Your task to perform on an android device: Turn on the flashlight Image 0: 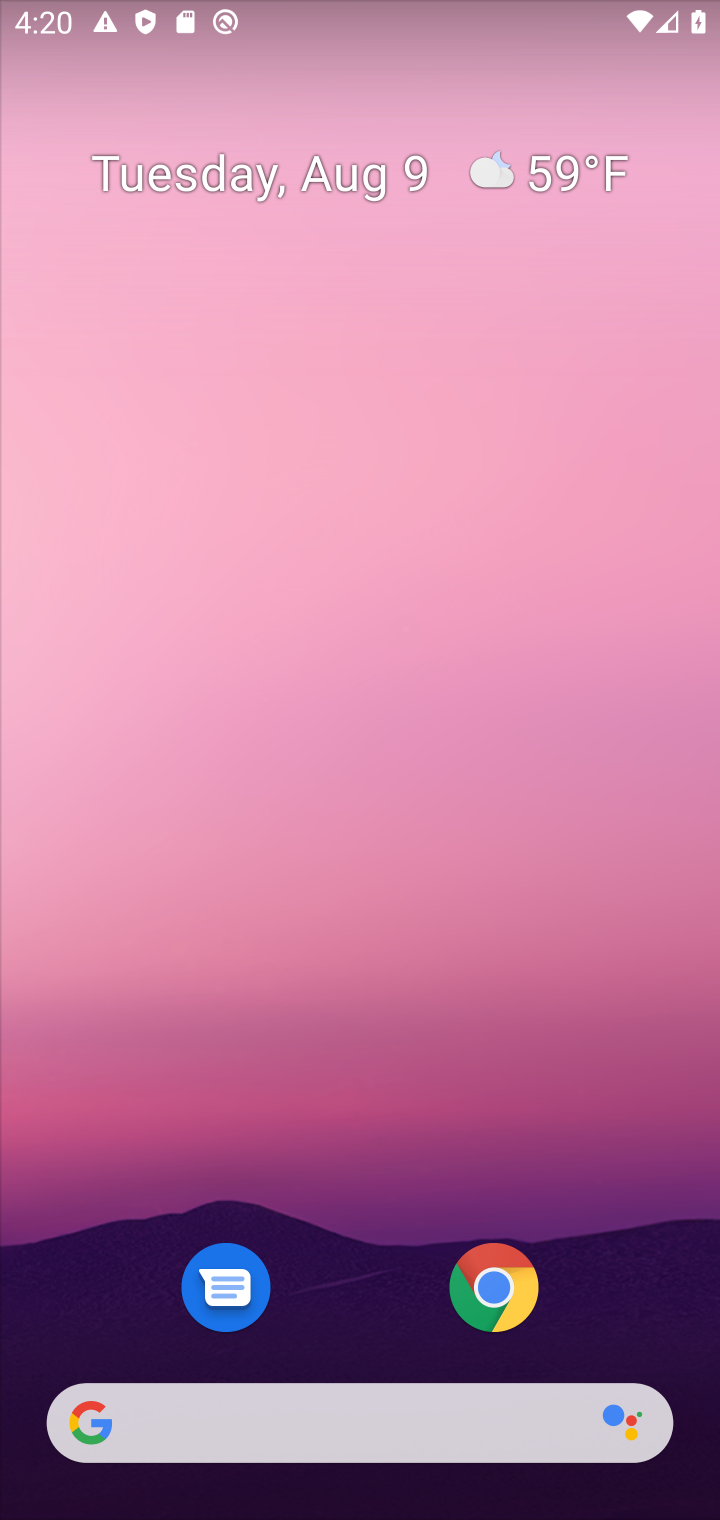
Step 0: drag from (475, 573) to (484, 440)
Your task to perform on an android device: Turn on the flashlight Image 1: 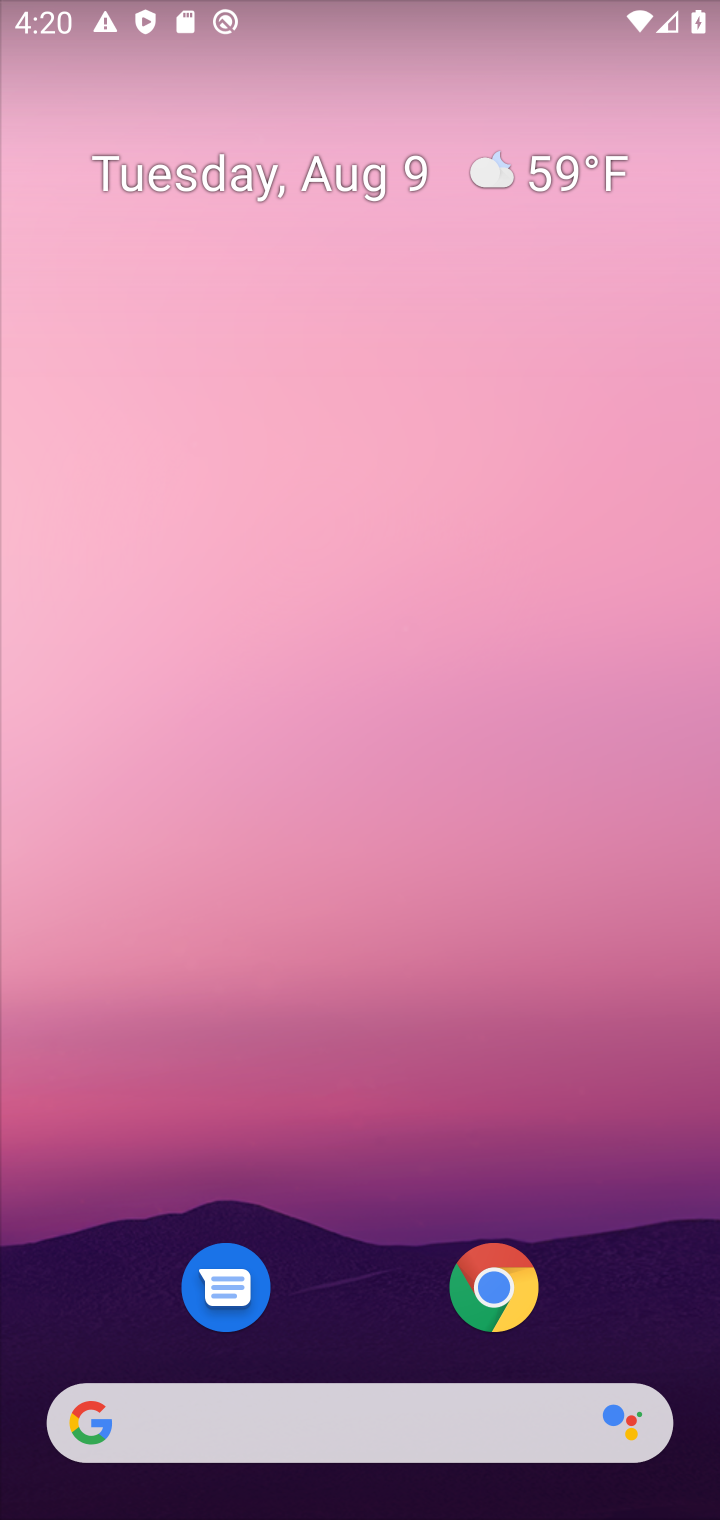
Step 1: task complete